Your task to perform on an android device: What's on my calendar today? Image 0: 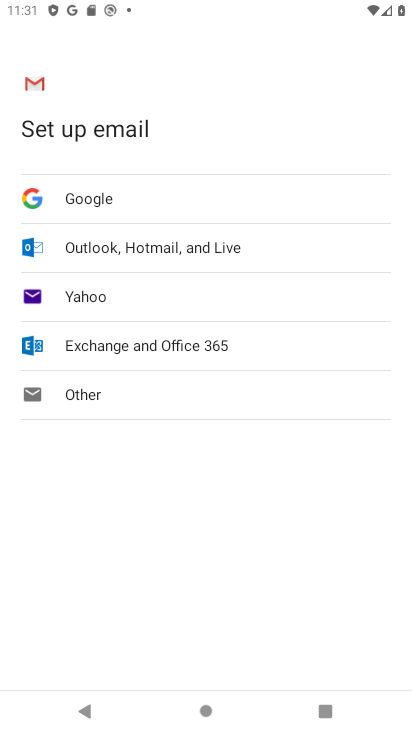
Step 0: press home button
Your task to perform on an android device: What's on my calendar today? Image 1: 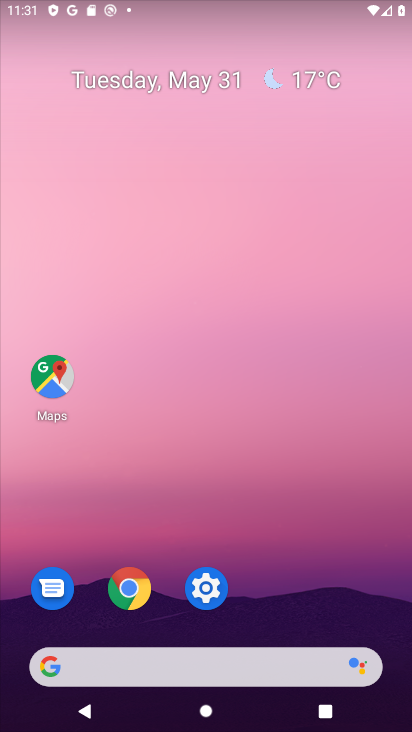
Step 1: click (154, 668)
Your task to perform on an android device: What's on my calendar today? Image 2: 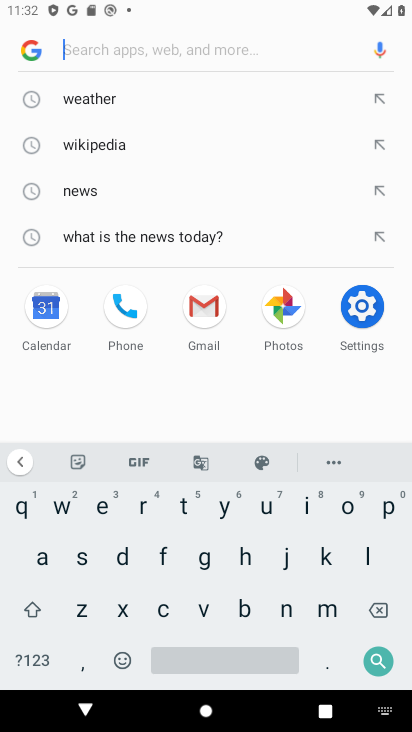
Step 2: click (63, 312)
Your task to perform on an android device: What's on my calendar today? Image 3: 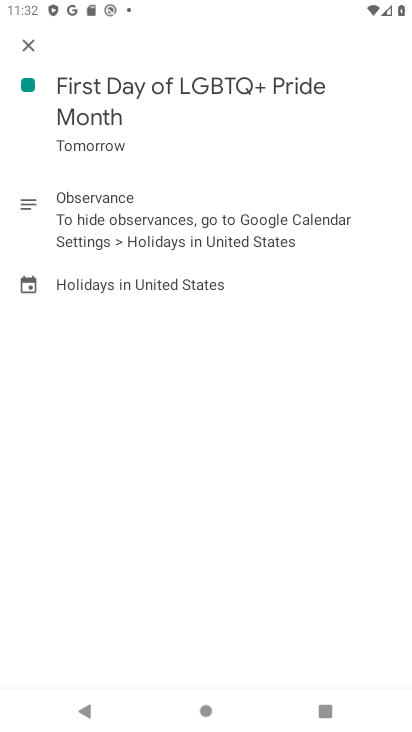
Step 3: click (23, 40)
Your task to perform on an android device: What's on my calendar today? Image 4: 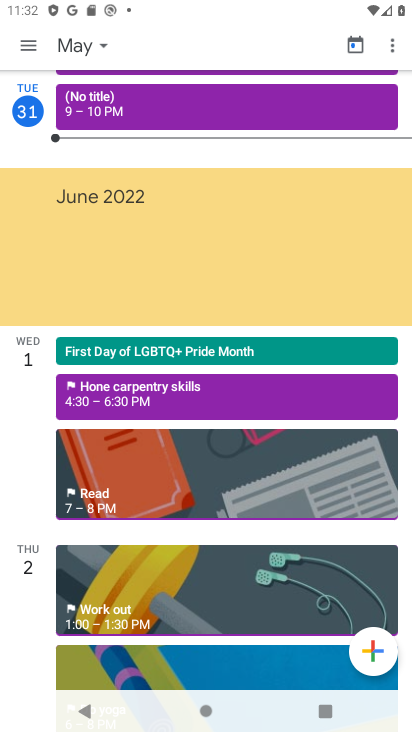
Step 4: task complete